Your task to perform on an android device: Set the phone to "Do not disturb". Image 0: 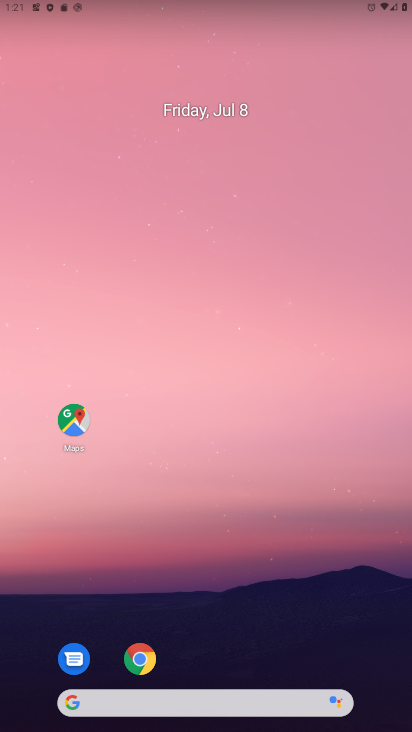
Step 0: drag from (246, 607) to (122, 115)
Your task to perform on an android device: Set the phone to "Do not disturb". Image 1: 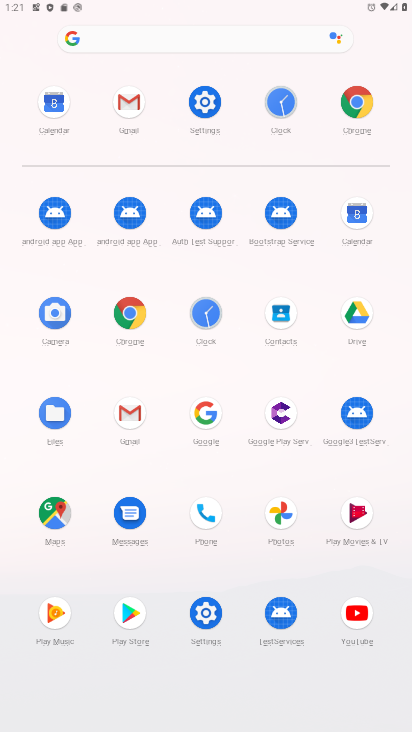
Step 1: click (203, 103)
Your task to perform on an android device: Set the phone to "Do not disturb". Image 2: 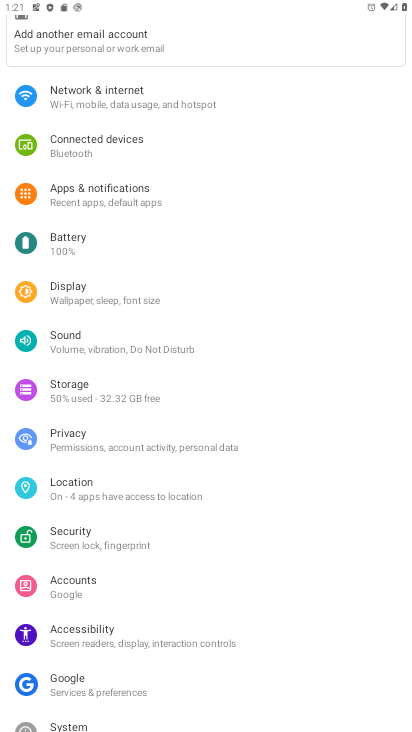
Step 2: click (86, 343)
Your task to perform on an android device: Set the phone to "Do not disturb". Image 3: 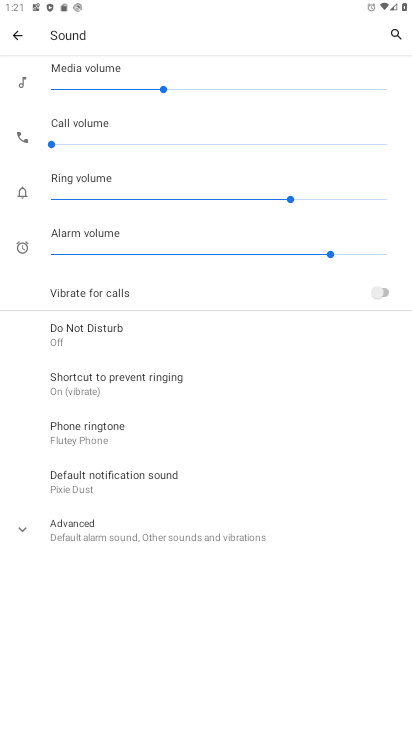
Step 3: click (74, 327)
Your task to perform on an android device: Set the phone to "Do not disturb". Image 4: 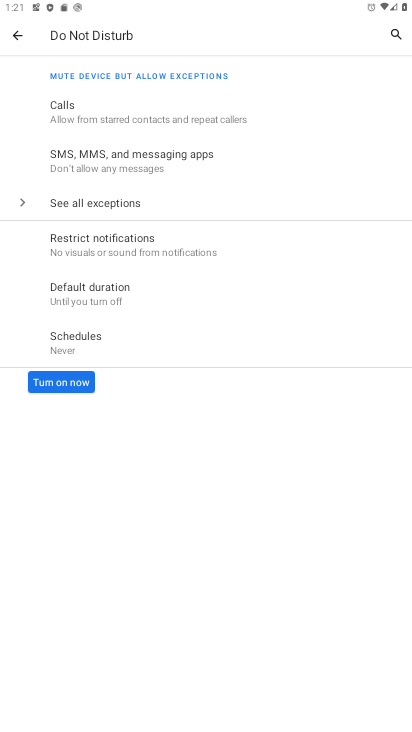
Step 4: click (50, 380)
Your task to perform on an android device: Set the phone to "Do not disturb". Image 5: 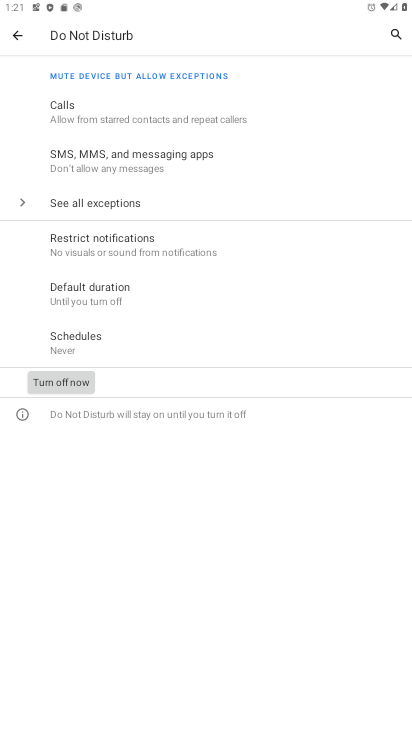
Step 5: task complete